Your task to perform on an android device: Open the map Image 0: 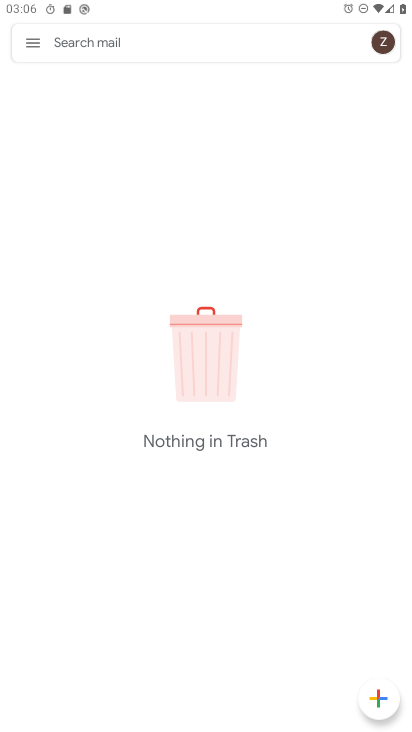
Step 0: press home button
Your task to perform on an android device: Open the map Image 1: 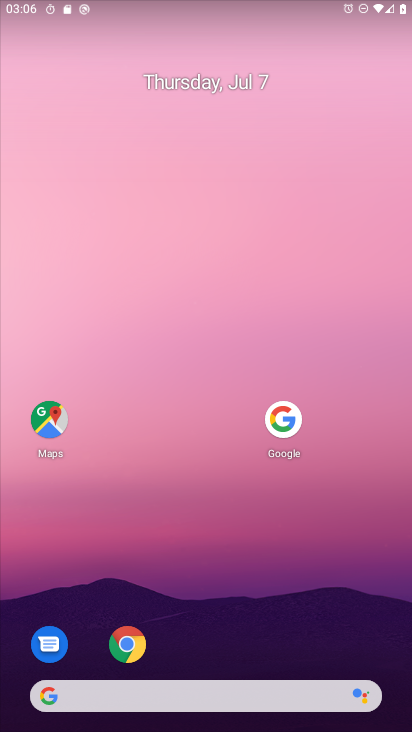
Step 1: click (50, 434)
Your task to perform on an android device: Open the map Image 2: 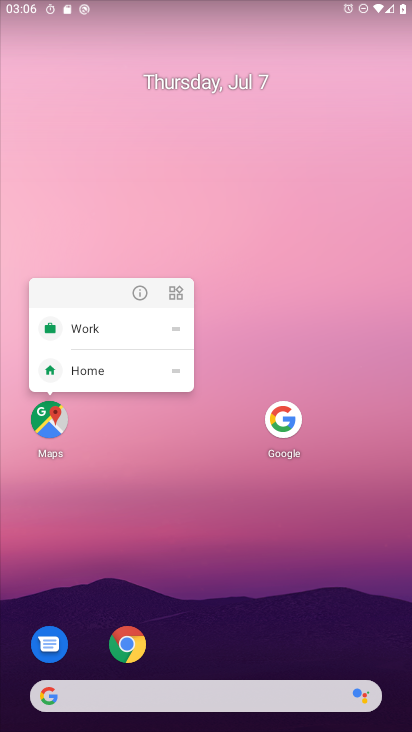
Step 2: click (44, 426)
Your task to perform on an android device: Open the map Image 3: 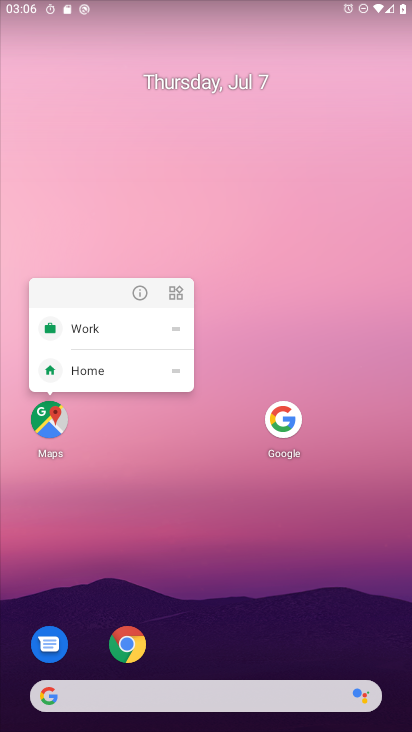
Step 3: click (50, 421)
Your task to perform on an android device: Open the map Image 4: 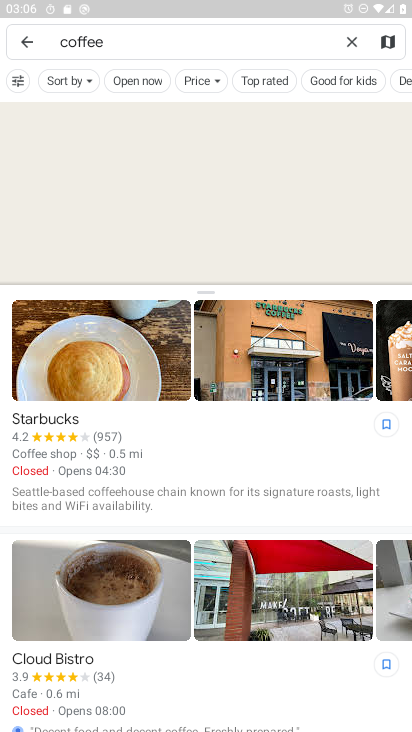
Step 4: click (27, 41)
Your task to perform on an android device: Open the map Image 5: 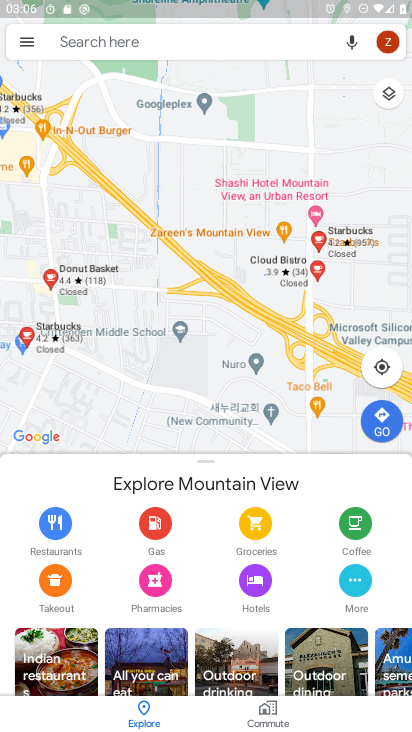
Step 5: task complete